Your task to perform on an android device: Go to Wikipedia Image 0: 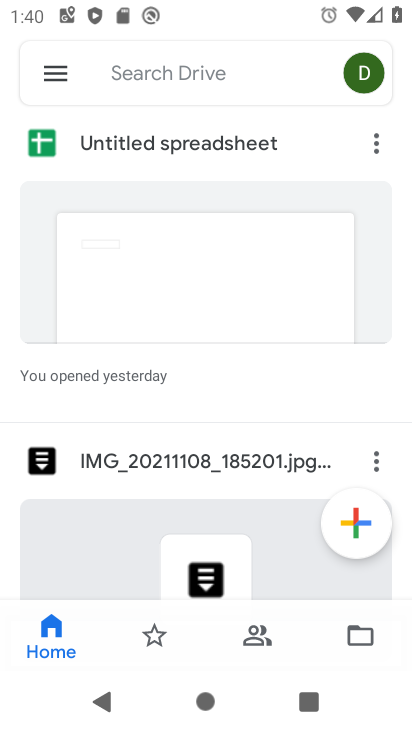
Step 0: press home button
Your task to perform on an android device: Go to Wikipedia Image 1: 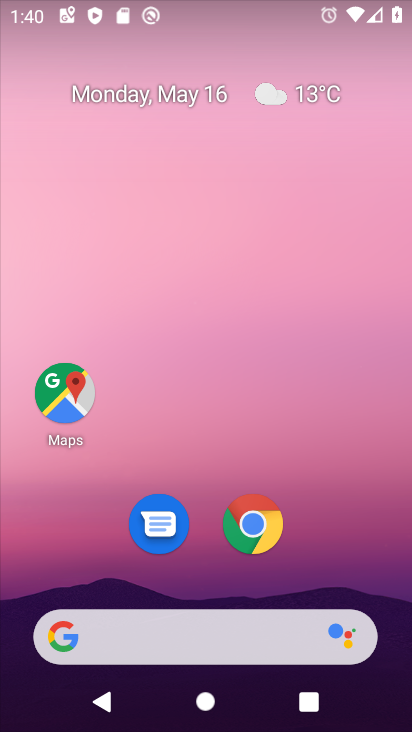
Step 1: drag from (333, 521) to (328, 70)
Your task to perform on an android device: Go to Wikipedia Image 2: 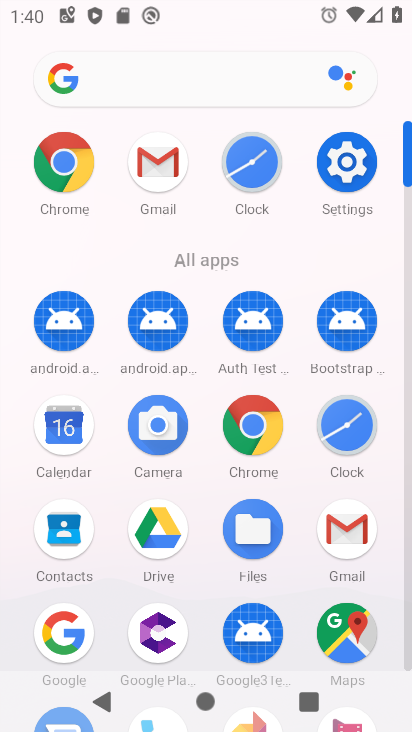
Step 2: click (73, 163)
Your task to perform on an android device: Go to Wikipedia Image 3: 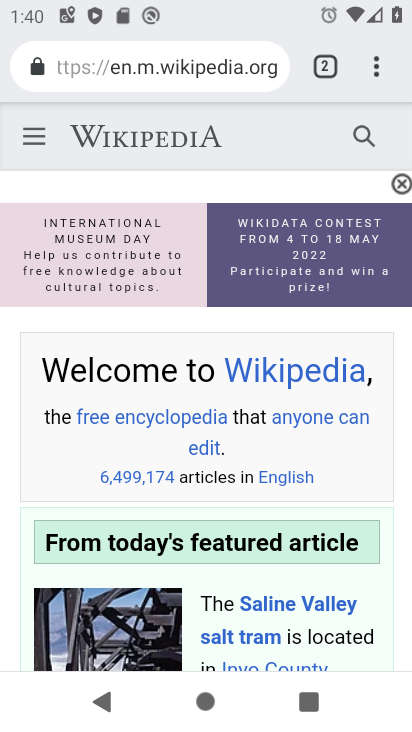
Step 3: task complete